Your task to perform on an android device: stop showing notifications on the lock screen Image 0: 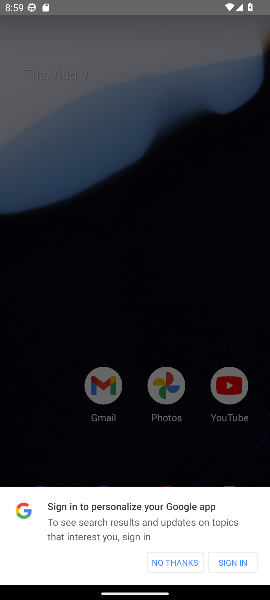
Step 0: press home button
Your task to perform on an android device: stop showing notifications on the lock screen Image 1: 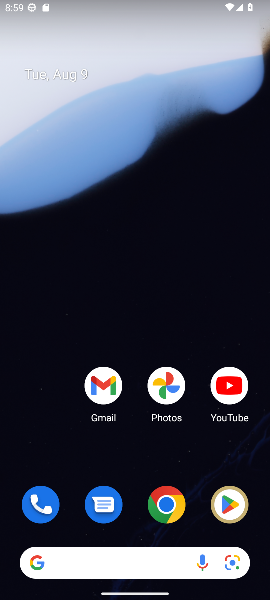
Step 1: drag from (140, 487) to (68, 40)
Your task to perform on an android device: stop showing notifications on the lock screen Image 2: 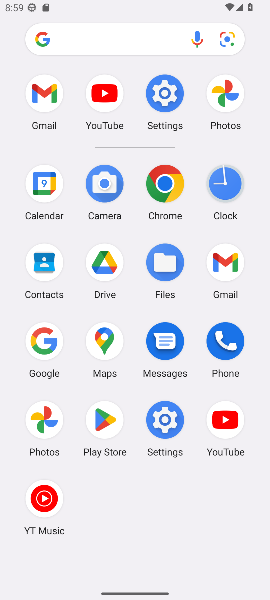
Step 2: click (166, 92)
Your task to perform on an android device: stop showing notifications on the lock screen Image 3: 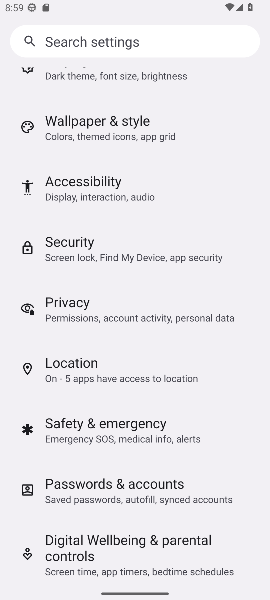
Step 3: drag from (179, 109) to (198, 294)
Your task to perform on an android device: stop showing notifications on the lock screen Image 4: 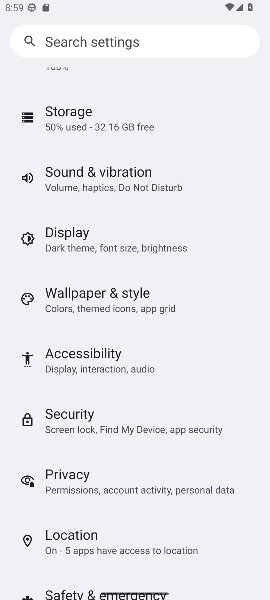
Step 4: drag from (164, 146) to (164, 594)
Your task to perform on an android device: stop showing notifications on the lock screen Image 5: 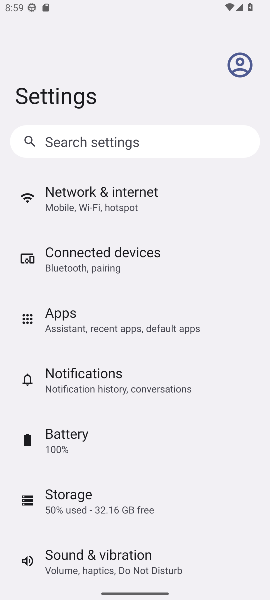
Step 5: click (86, 366)
Your task to perform on an android device: stop showing notifications on the lock screen Image 6: 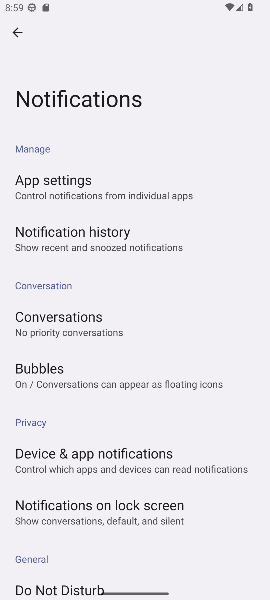
Step 6: click (109, 502)
Your task to perform on an android device: stop showing notifications on the lock screen Image 7: 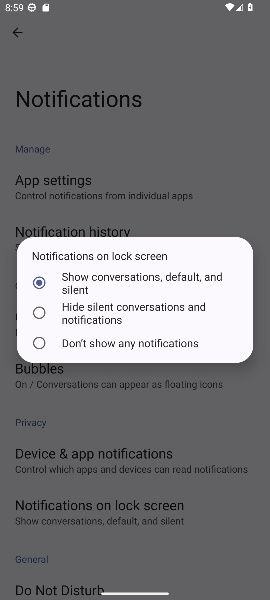
Step 7: click (37, 343)
Your task to perform on an android device: stop showing notifications on the lock screen Image 8: 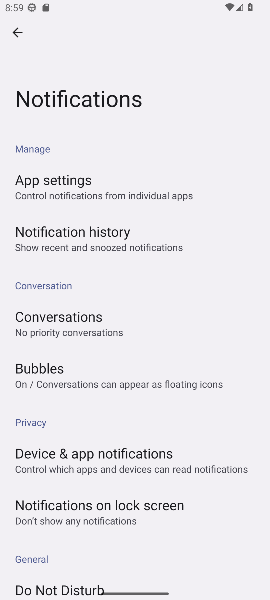
Step 8: task complete